Your task to perform on an android device: open app "Google Chat" Image 0: 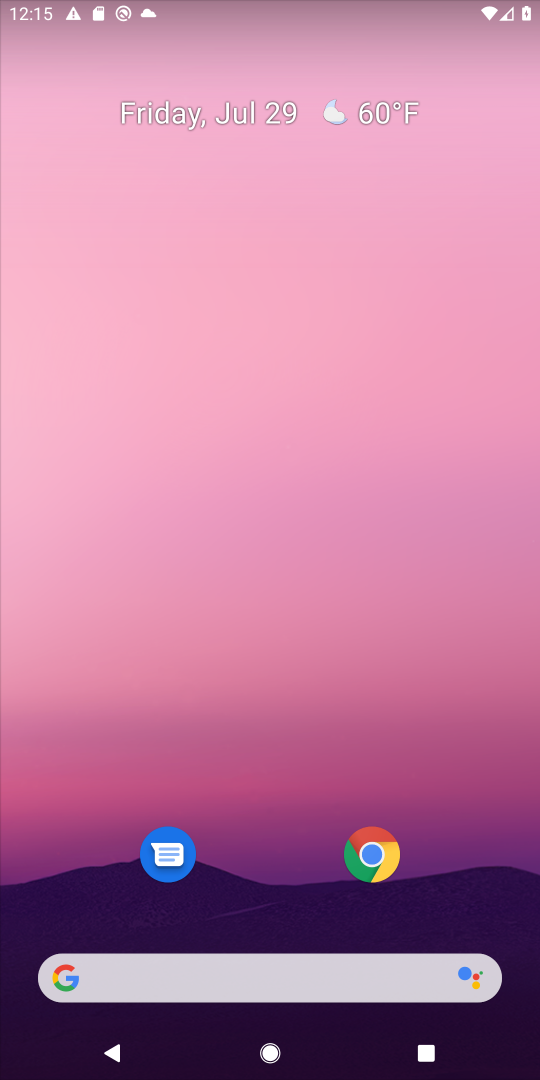
Step 0: drag from (283, 879) to (410, 69)
Your task to perform on an android device: open app "Google Chat" Image 1: 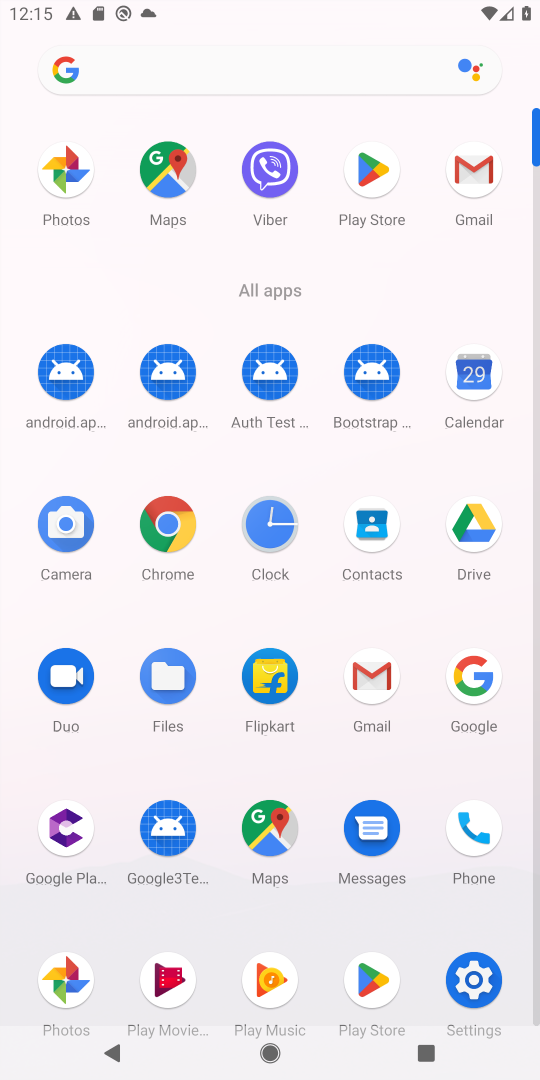
Step 1: click (367, 172)
Your task to perform on an android device: open app "Google Chat" Image 2: 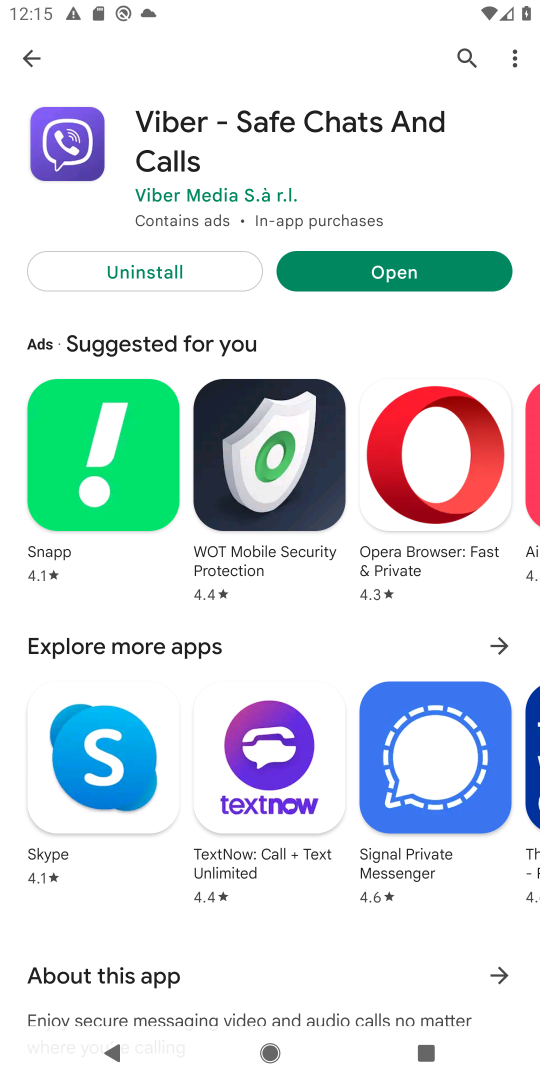
Step 2: click (455, 53)
Your task to perform on an android device: open app "Google Chat" Image 3: 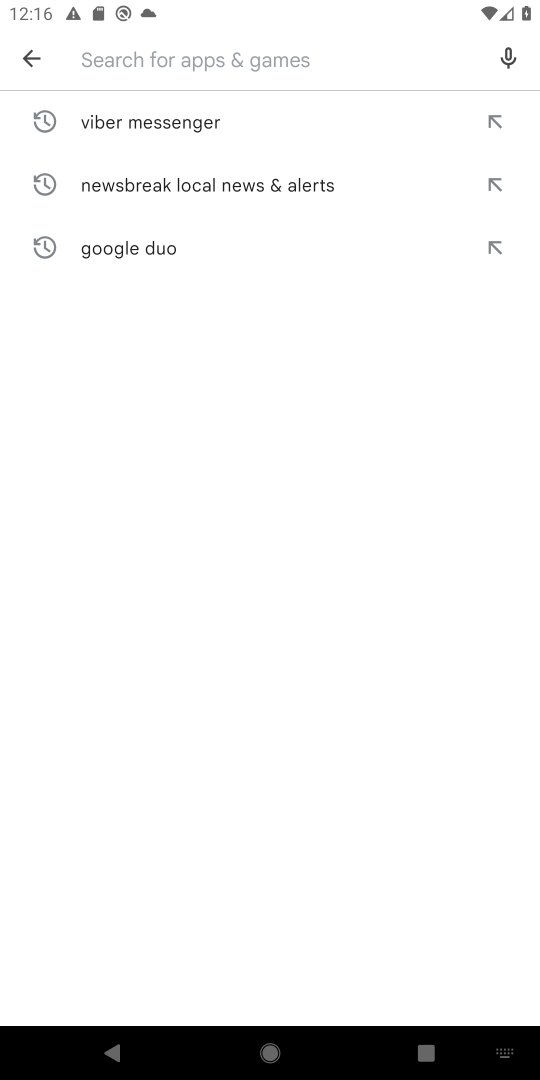
Step 3: type "google chat"
Your task to perform on an android device: open app "Google Chat" Image 4: 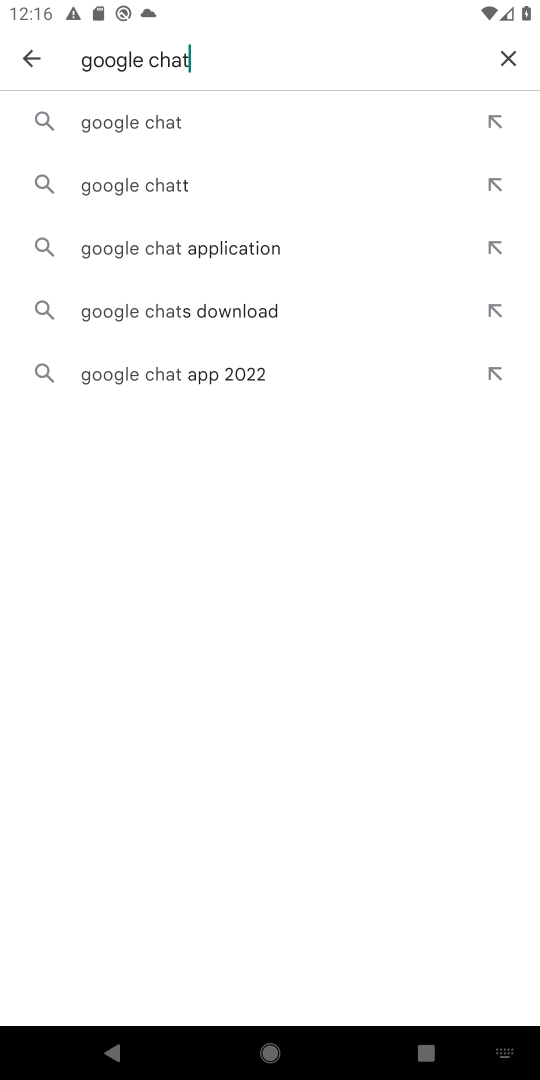
Step 4: click (157, 126)
Your task to perform on an android device: open app "Google Chat" Image 5: 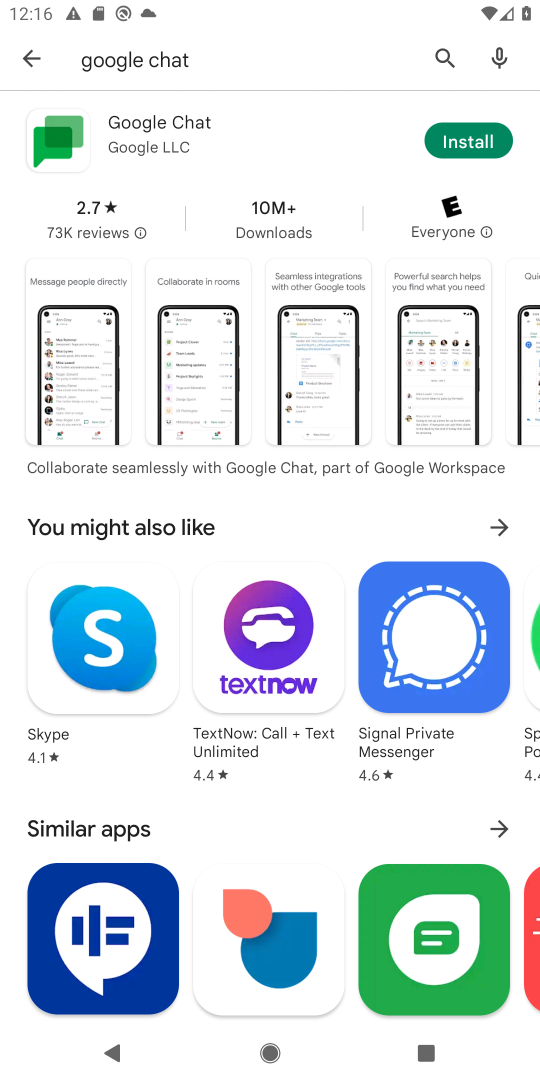
Step 5: click (164, 123)
Your task to perform on an android device: open app "Google Chat" Image 6: 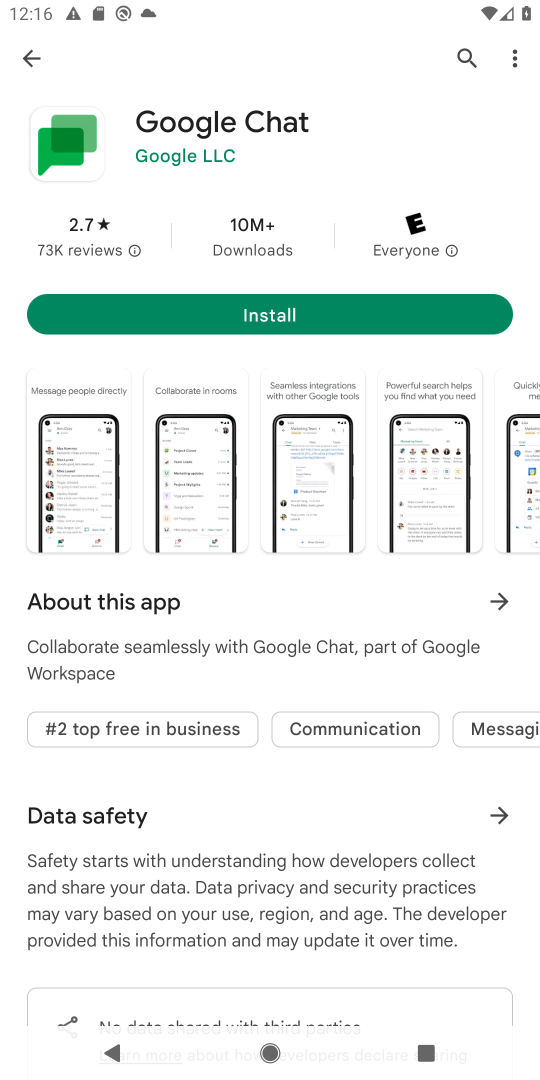
Step 6: task complete